Your task to perform on an android device: Open calendar and show me the second week of next month Image 0: 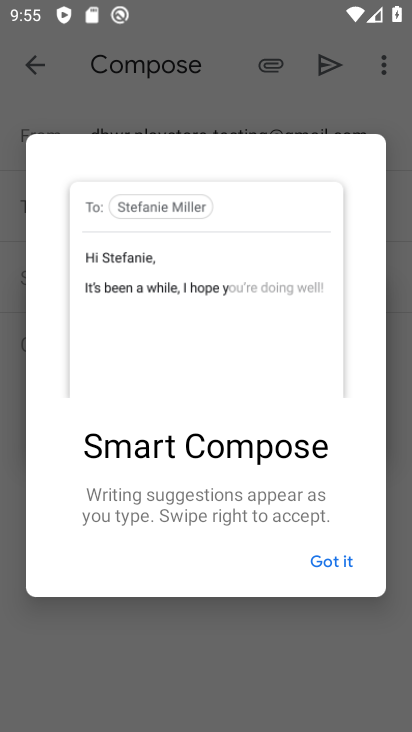
Step 0: press home button
Your task to perform on an android device: Open calendar and show me the second week of next month Image 1: 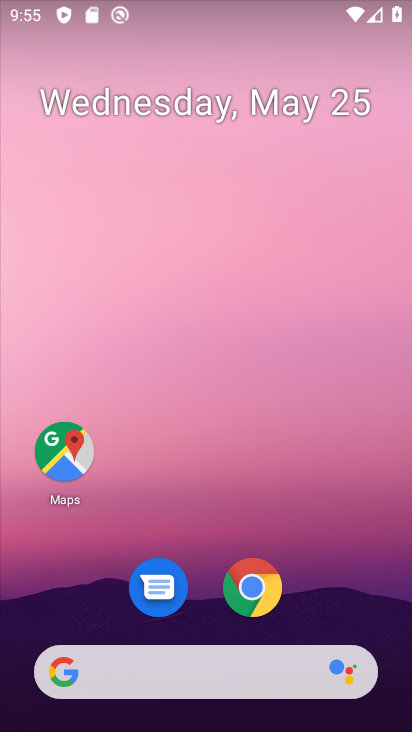
Step 1: drag from (208, 614) to (216, 4)
Your task to perform on an android device: Open calendar and show me the second week of next month Image 2: 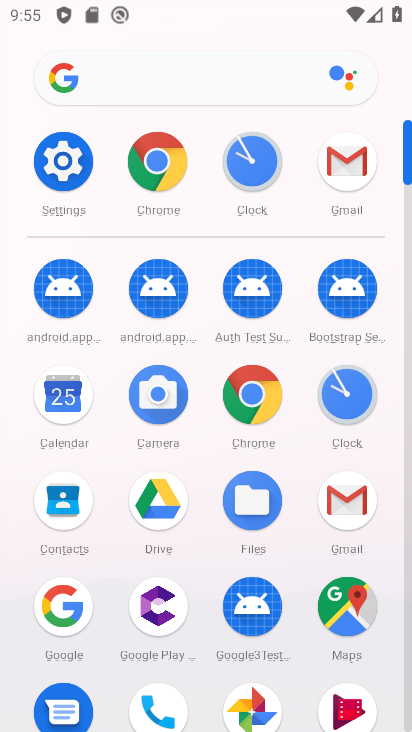
Step 2: click (61, 396)
Your task to perform on an android device: Open calendar and show me the second week of next month Image 3: 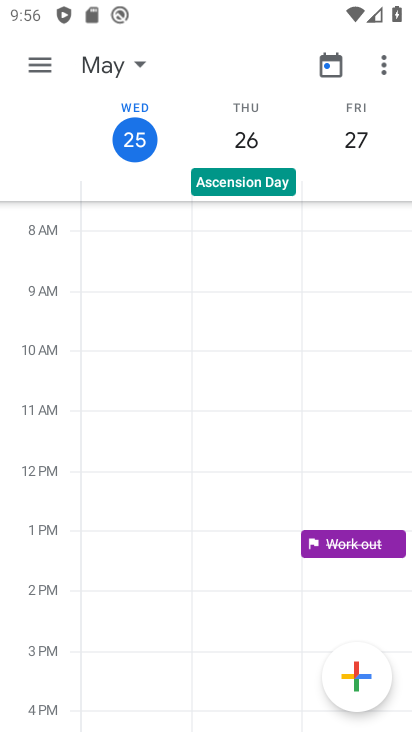
Step 3: click (37, 57)
Your task to perform on an android device: Open calendar and show me the second week of next month Image 4: 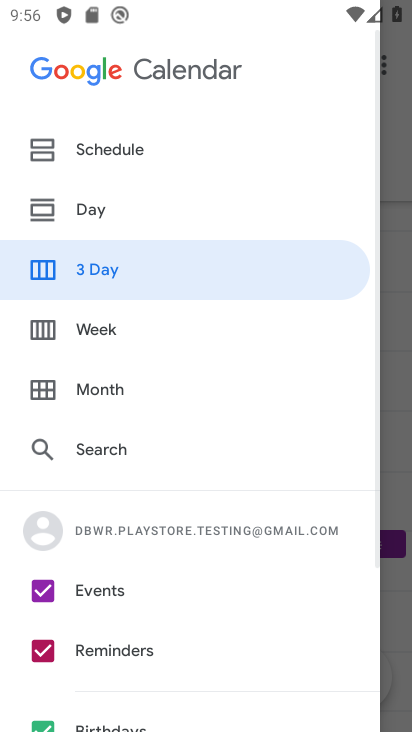
Step 4: click (111, 321)
Your task to perform on an android device: Open calendar and show me the second week of next month Image 5: 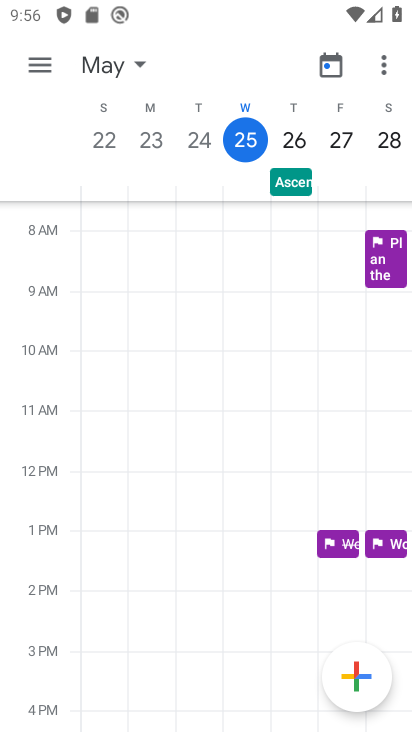
Step 5: task complete